Your task to perform on an android device: Search for the best rated headphones on Amazon Image 0: 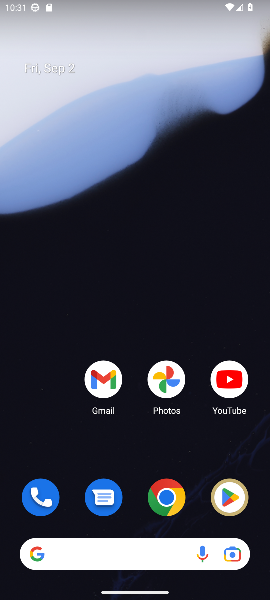
Step 0: drag from (158, 11) to (122, 131)
Your task to perform on an android device: Search for the best rated headphones on Amazon Image 1: 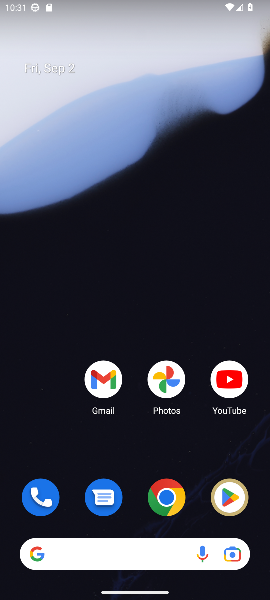
Step 1: drag from (141, 517) to (162, 287)
Your task to perform on an android device: Search for the best rated headphones on Amazon Image 2: 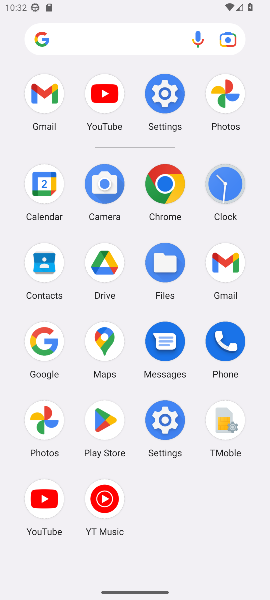
Step 2: click (41, 350)
Your task to perform on an android device: Search for the best rated headphones on Amazon Image 3: 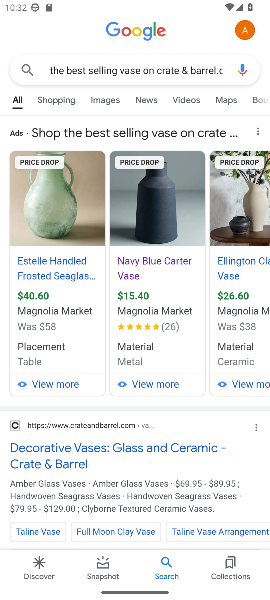
Step 3: click (38, 347)
Your task to perform on an android device: Search for the best rated headphones on Amazon Image 4: 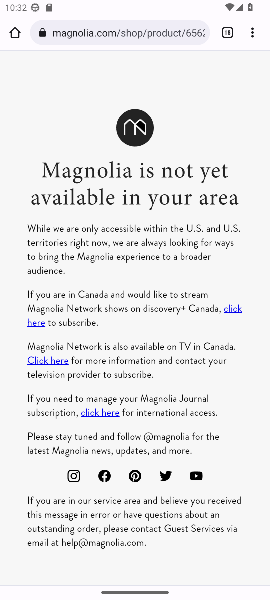
Step 4: click (189, 63)
Your task to perform on an android device: Search for the best rated headphones on Amazon Image 5: 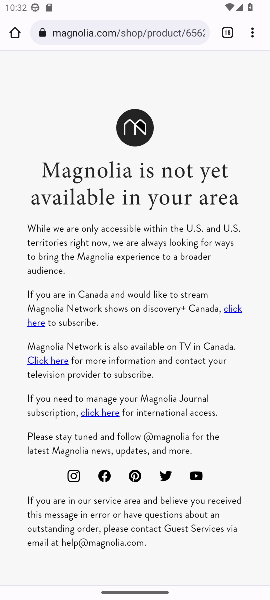
Step 5: click (188, 32)
Your task to perform on an android device: Search for the best rated headphones on Amazon Image 6: 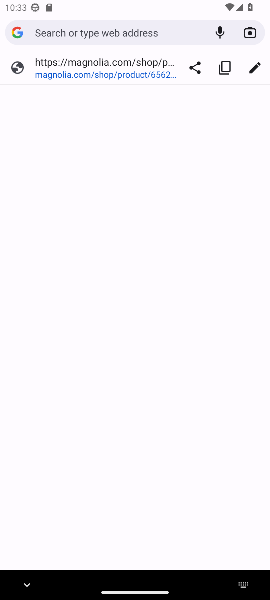
Step 6: type "the best rated headphones on Amazon"
Your task to perform on an android device: Search for the best rated headphones on Amazon Image 7: 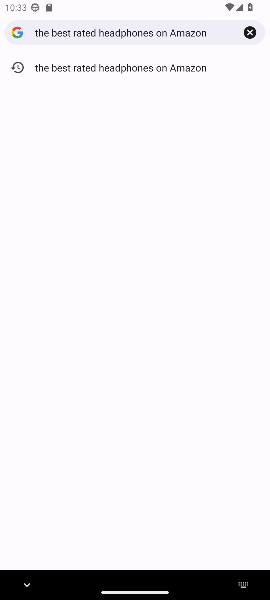
Step 7: click (185, 74)
Your task to perform on an android device: Search for the best rated headphones on Amazon Image 8: 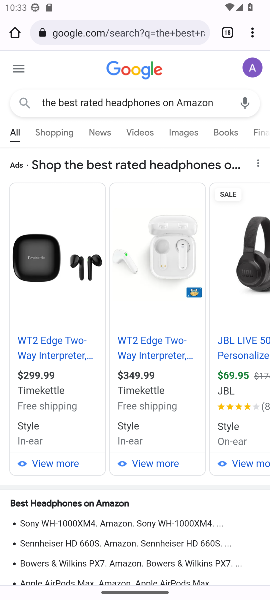
Step 8: task complete